Your task to perform on an android device: Go to Wikipedia Image 0: 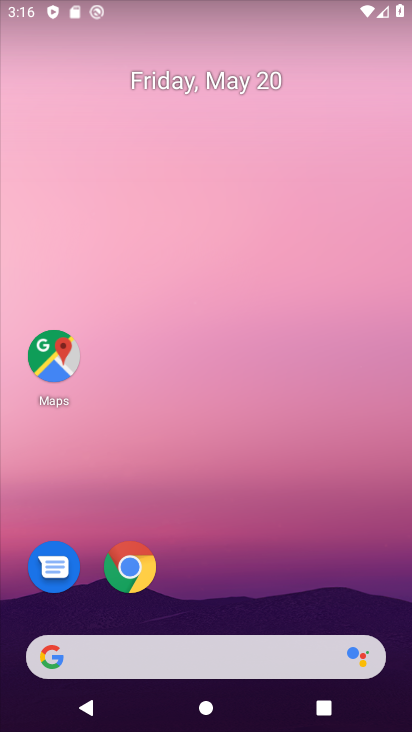
Step 0: drag from (291, 574) to (309, 21)
Your task to perform on an android device: Go to Wikipedia Image 1: 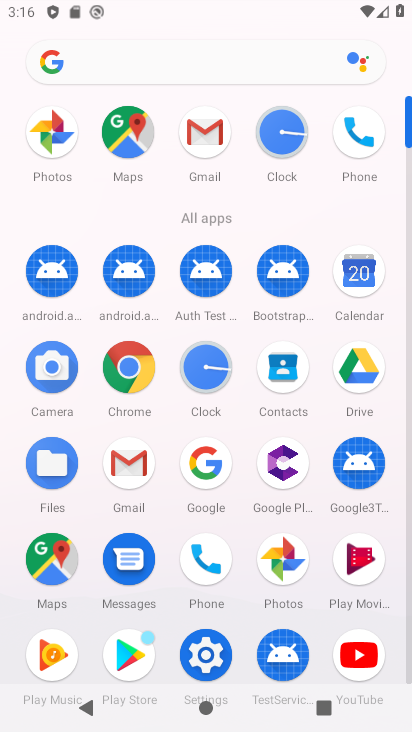
Step 1: click (138, 377)
Your task to perform on an android device: Go to Wikipedia Image 2: 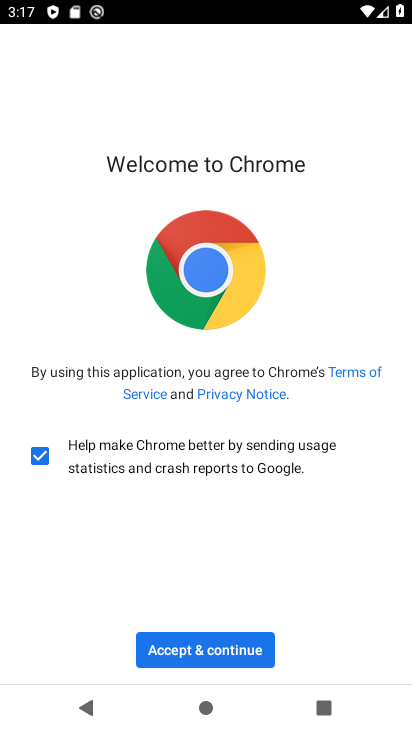
Step 2: click (200, 636)
Your task to perform on an android device: Go to Wikipedia Image 3: 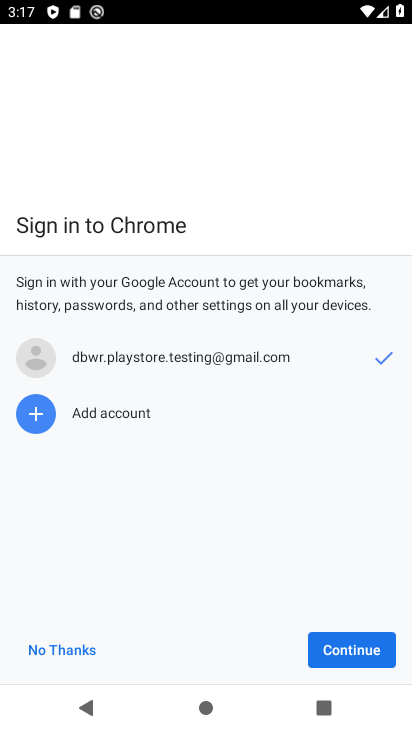
Step 3: click (57, 650)
Your task to perform on an android device: Go to Wikipedia Image 4: 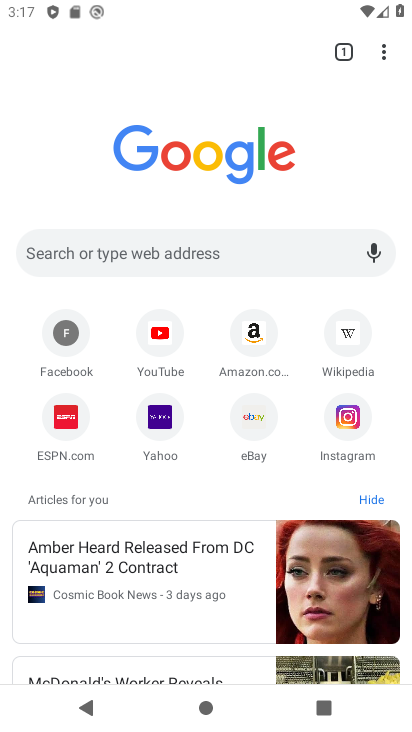
Step 4: click (346, 351)
Your task to perform on an android device: Go to Wikipedia Image 5: 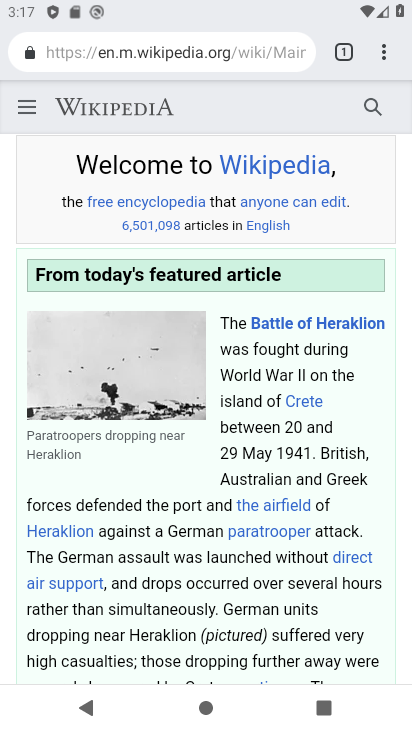
Step 5: task complete